Your task to perform on an android device: toggle notification dots Image 0: 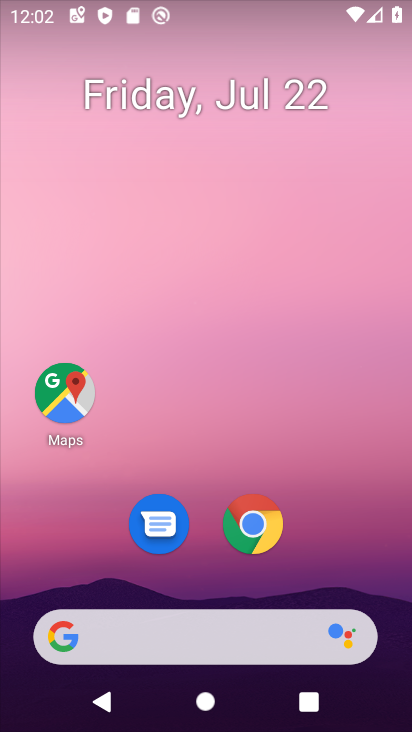
Step 0: drag from (310, 525) to (318, 18)
Your task to perform on an android device: toggle notification dots Image 1: 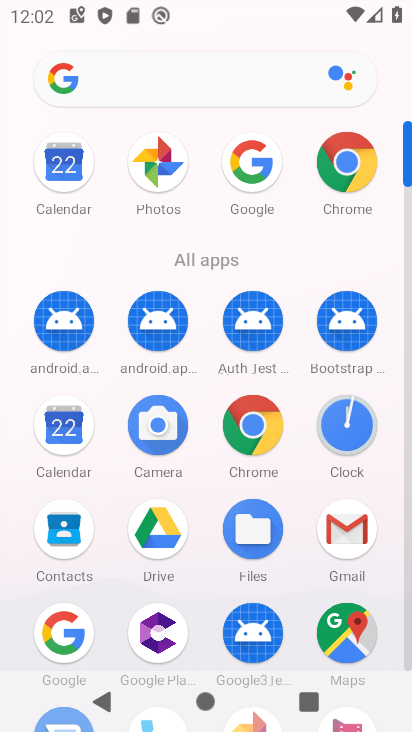
Step 1: drag from (196, 508) to (227, 21)
Your task to perform on an android device: toggle notification dots Image 2: 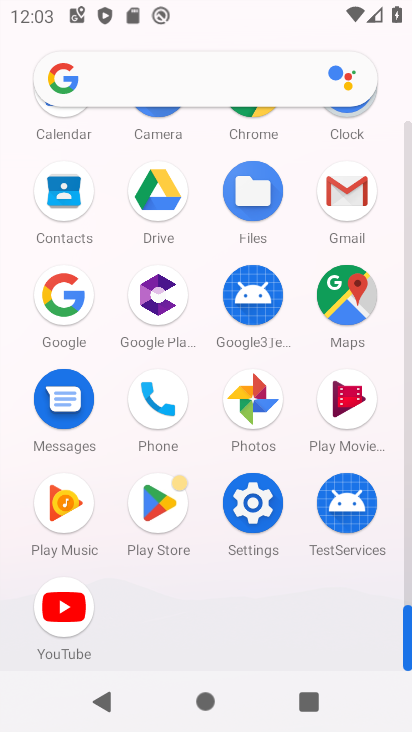
Step 2: click (256, 509)
Your task to perform on an android device: toggle notification dots Image 3: 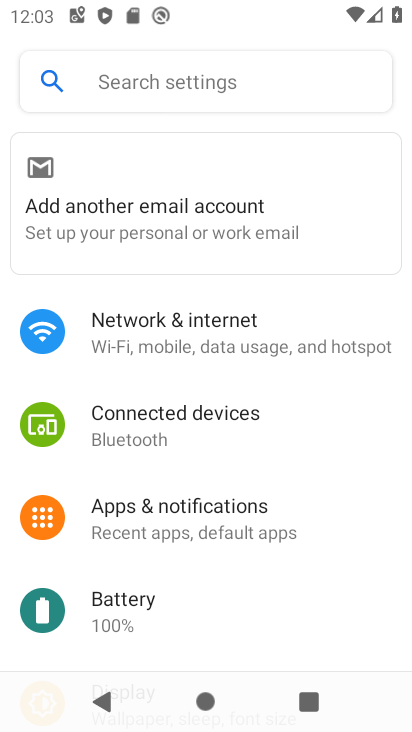
Step 3: click (248, 519)
Your task to perform on an android device: toggle notification dots Image 4: 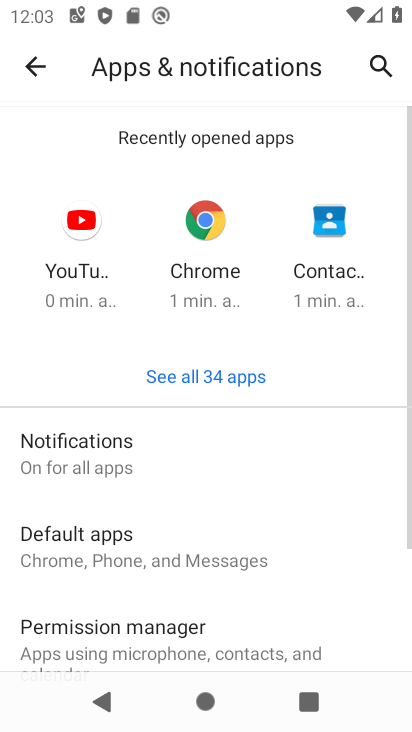
Step 4: click (129, 455)
Your task to perform on an android device: toggle notification dots Image 5: 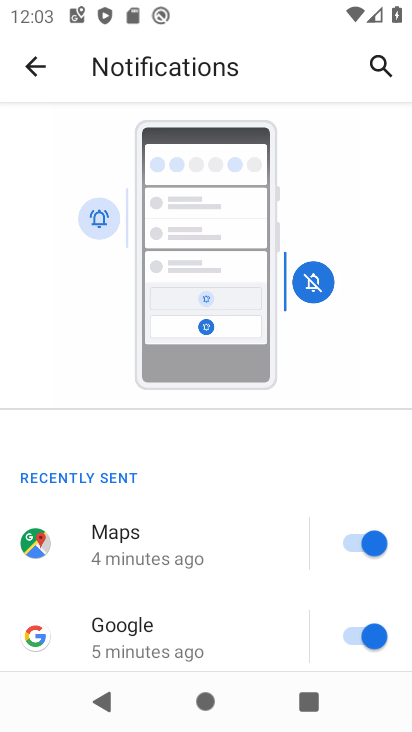
Step 5: drag from (229, 612) to (267, 26)
Your task to perform on an android device: toggle notification dots Image 6: 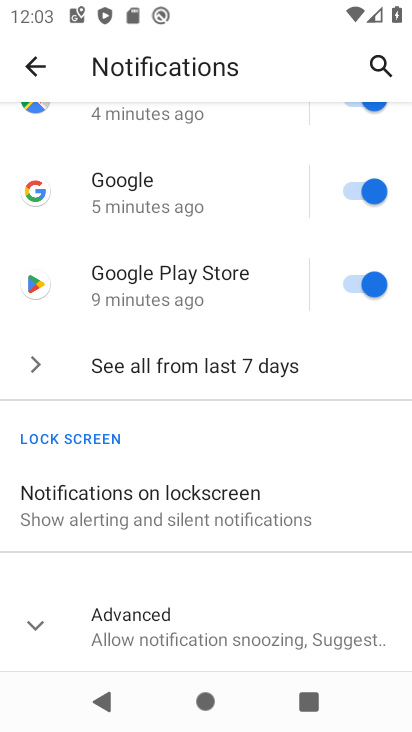
Step 6: click (30, 627)
Your task to perform on an android device: toggle notification dots Image 7: 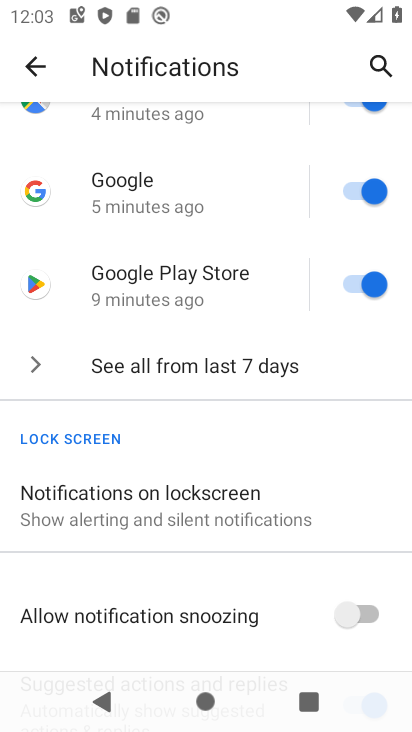
Step 7: drag from (185, 551) to (242, 193)
Your task to perform on an android device: toggle notification dots Image 8: 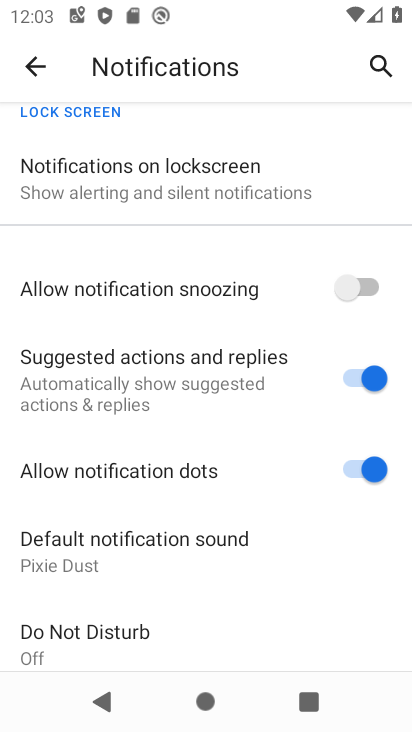
Step 8: click (366, 470)
Your task to perform on an android device: toggle notification dots Image 9: 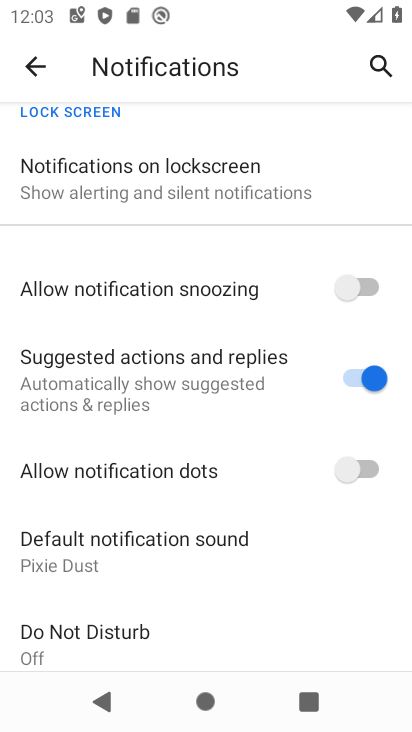
Step 9: task complete